Your task to perform on an android device: Open the phone app and click the voicemail tab. Image 0: 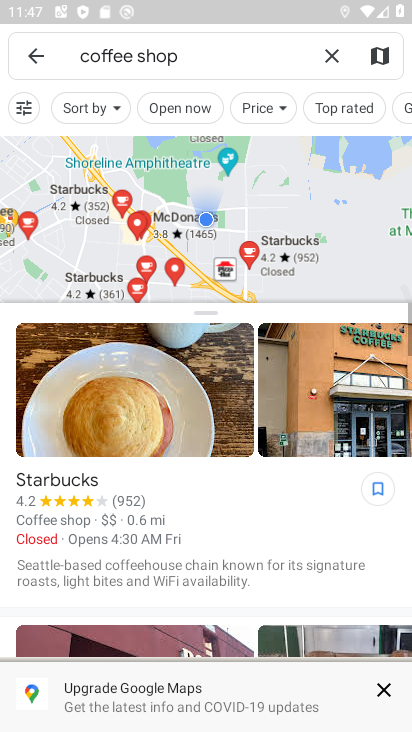
Step 0: press home button
Your task to perform on an android device: Open the phone app and click the voicemail tab. Image 1: 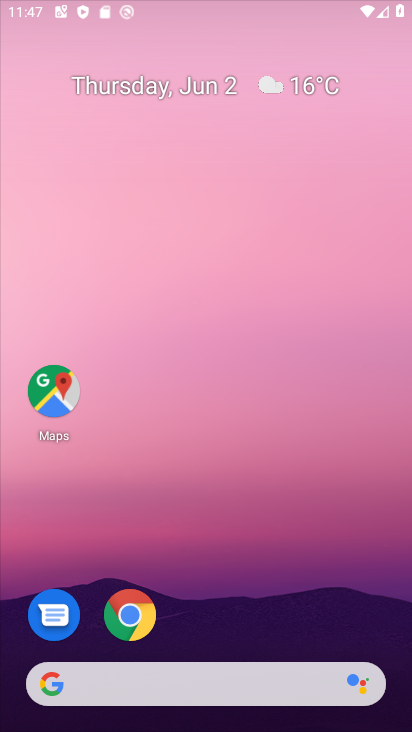
Step 1: drag from (185, 589) to (256, 288)
Your task to perform on an android device: Open the phone app and click the voicemail tab. Image 2: 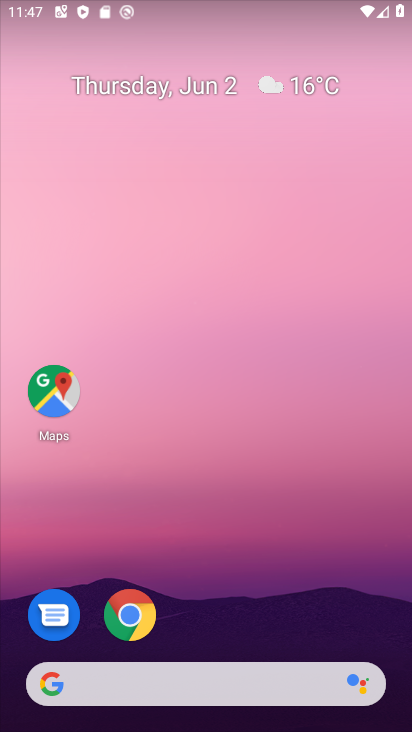
Step 2: drag from (258, 399) to (260, 268)
Your task to perform on an android device: Open the phone app and click the voicemail tab. Image 3: 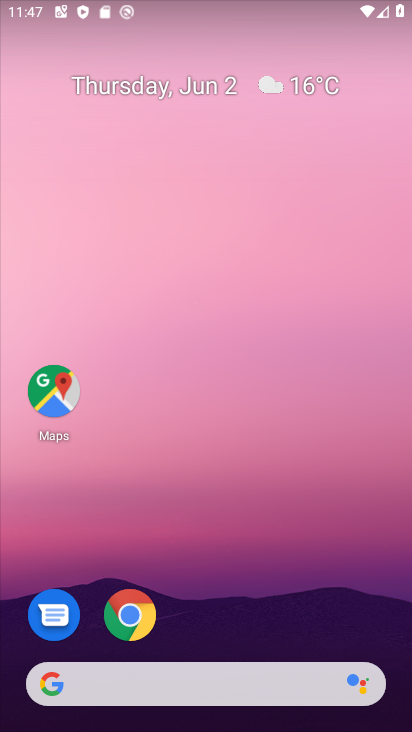
Step 3: drag from (176, 656) to (219, 245)
Your task to perform on an android device: Open the phone app and click the voicemail tab. Image 4: 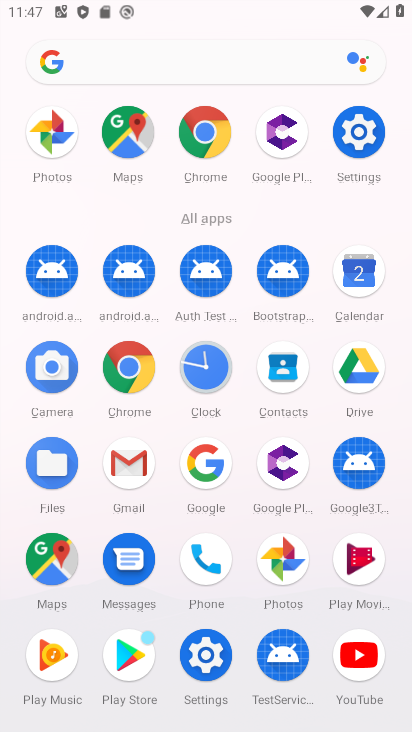
Step 4: click (201, 565)
Your task to perform on an android device: Open the phone app and click the voicemail tab. Image 5: 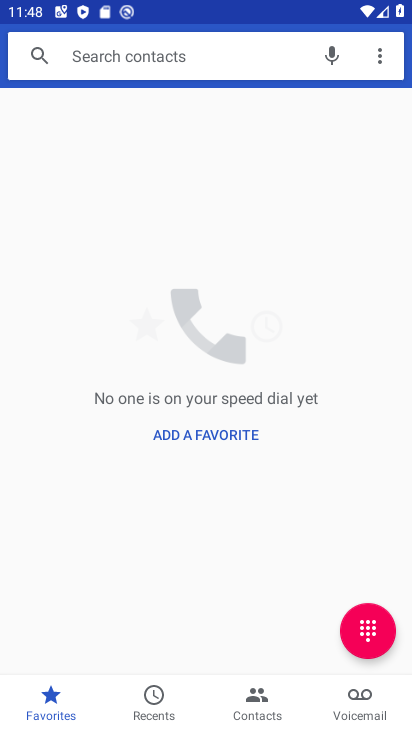
Step 5: click (353, 692)
Your task to perform on an android device: Open the phone app and click the voicemail tab. Image 6: 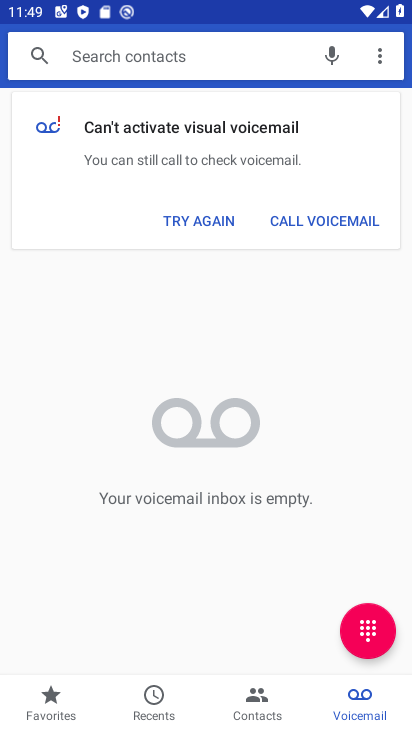
Step 6: task complete